Your task to perform on an android device: open a bookmark in the chrome app Image 0: 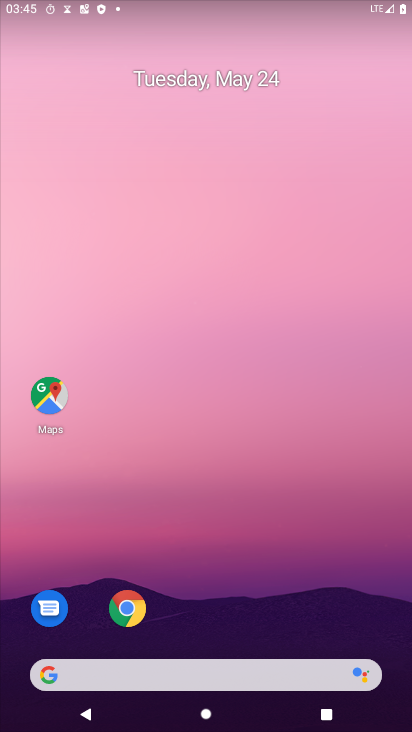
Step 0: click (139, 617)
Your task to perform on an android device: open a bookmark in the chrome app Image 1: 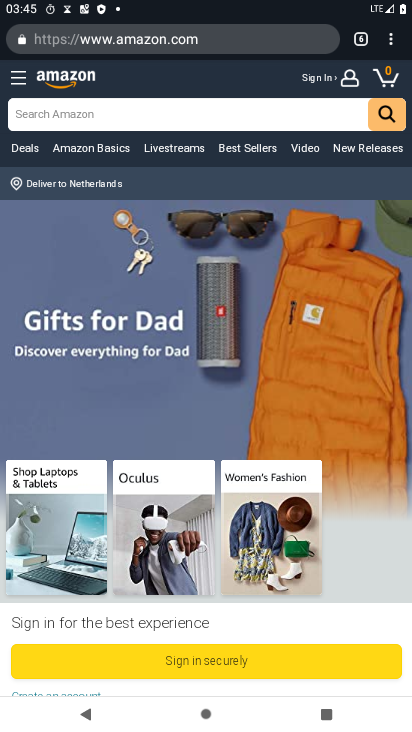
Step 1: click (397, 38)
Your task to perform on an android device: open a bookmark in the chrome app Image 2: 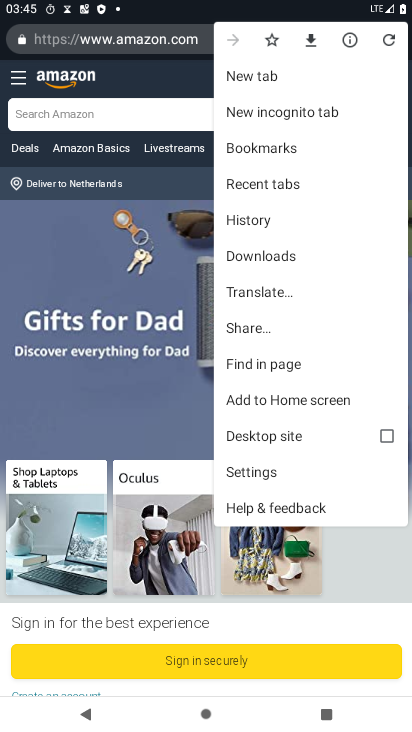
Step 2: click (287, 141)
Your task to perform on an android device: open a bookmark in the chrome app Image 3: 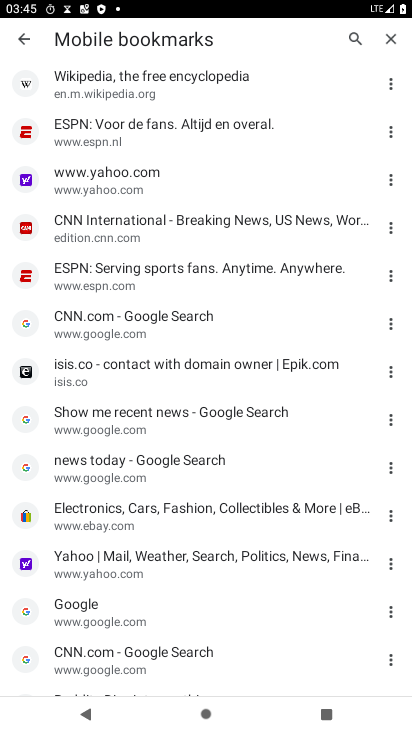
Step 3: click (169, 163)
Your task to perform on an android device: open a bookmark in the chrome app Image 4: 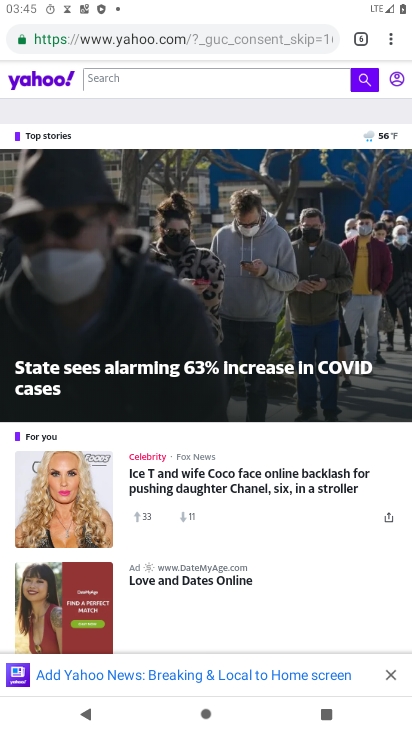
Step 4: task complete